Your task to perform on an android device: move an email to a new category in the gmail app Image 0: 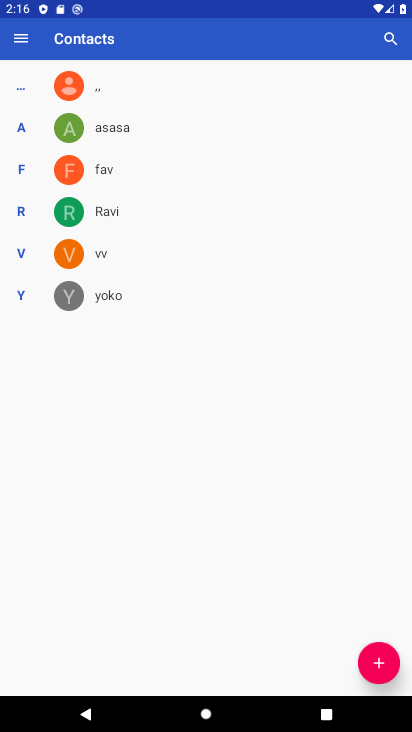
Step 0: press home button
Your task to perform on an android device: move an email to a new category in the gmail app Image 1: 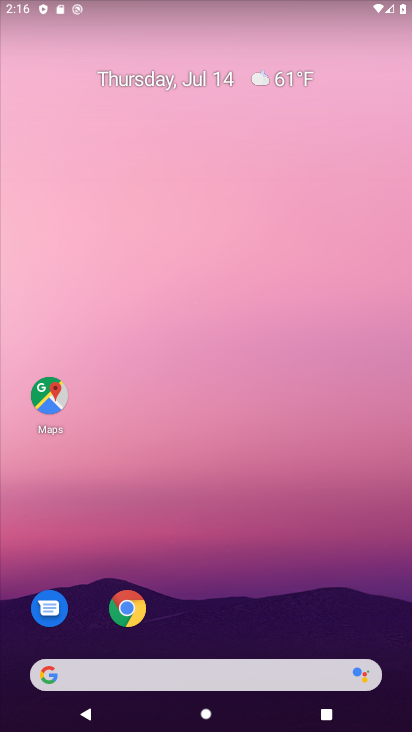
Step 1: drag from (251, 654) to (278, 202)
Your task to perform on an android device: move an email to a new category in the gmail app Image 2: 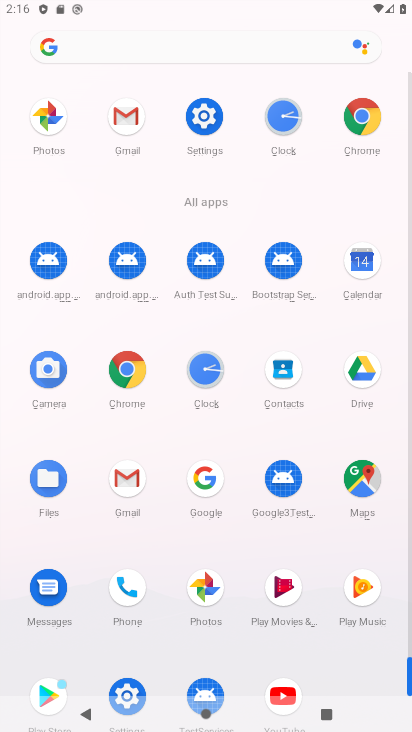
Step 2: click (116, 490)
Your task to perform on an android device: move an email to a new category in the gmail app Image 3: 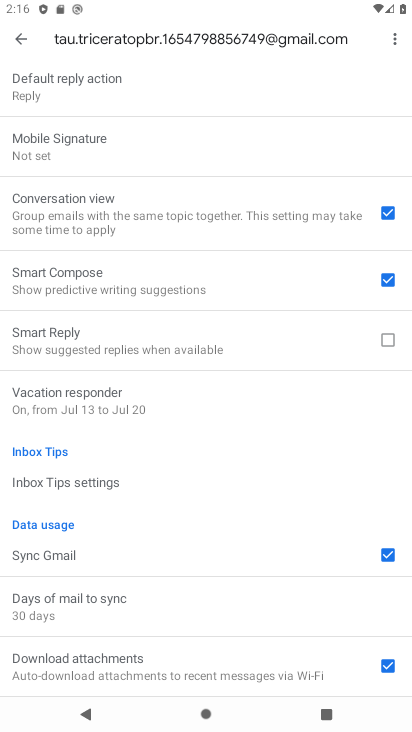
Step 3: press back button
Your task to perform on an android device: move an email to a new category in the gmail app Image 4: 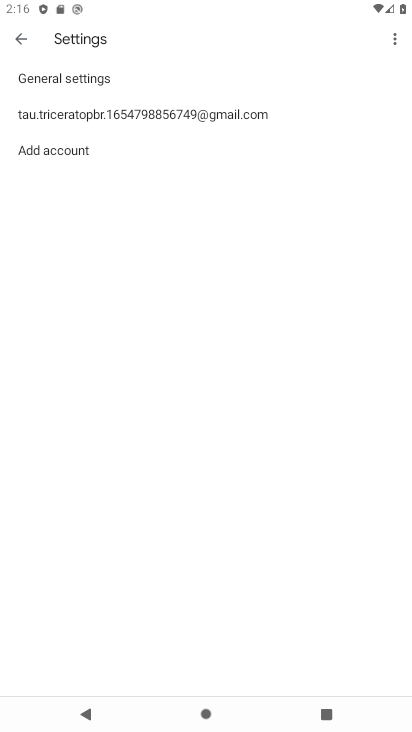
Step 4: press back button
Your task to perform on an android device: move an email to a new category in the gmail app Image 5: 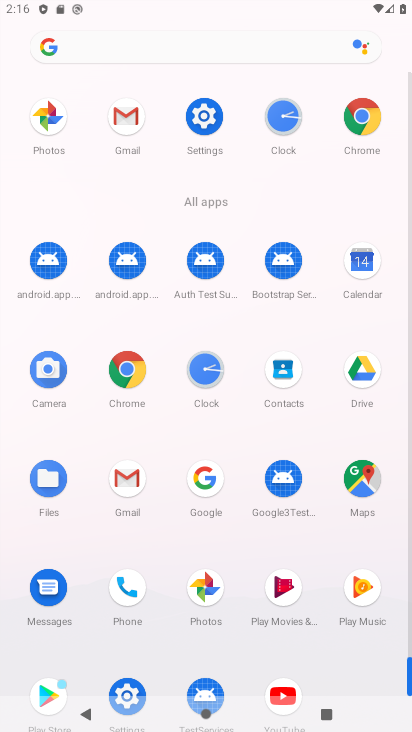
Step 5: click (129, 482)
Your task to perform on an android device: move an email to a new category in the gmail app Image 6: 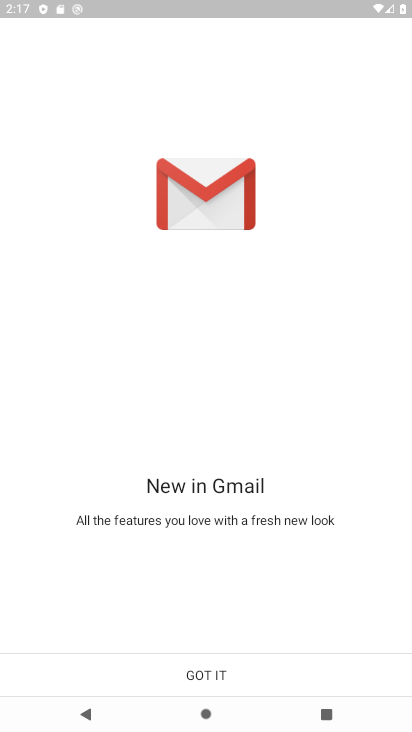
Step 6: click (230, 678)
Your task to perform on an android device: move an email to a new category in the gmail app Image 7: 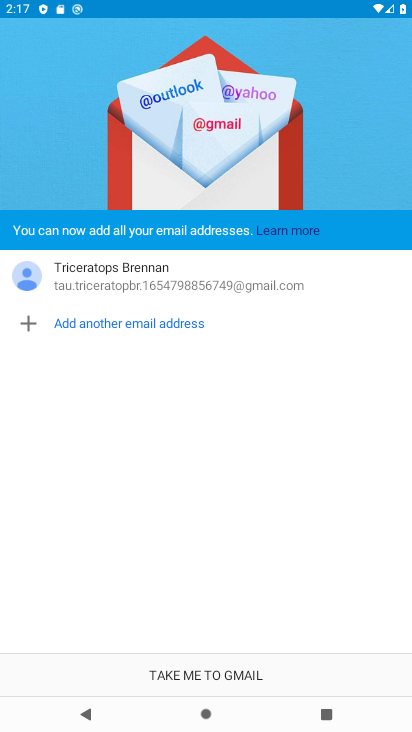
Step 7: click (230, 678)
Your task to perform on an android device: move an email to a new category in the gmail app Image 8: 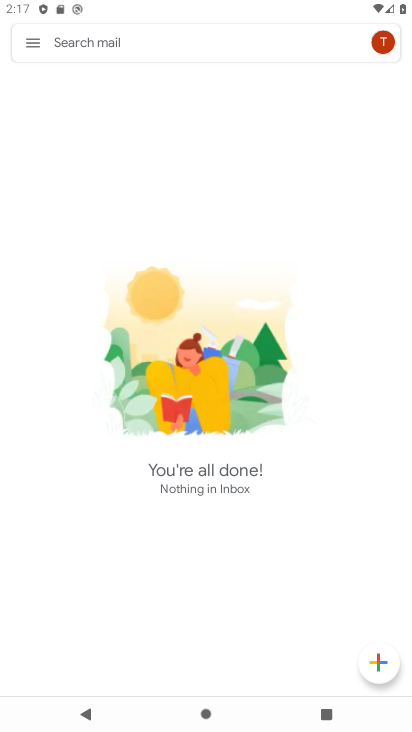
Step 8: click (33, 41)
Your task to perform on an android device: move an email to a new category in the gmail app Image 9: 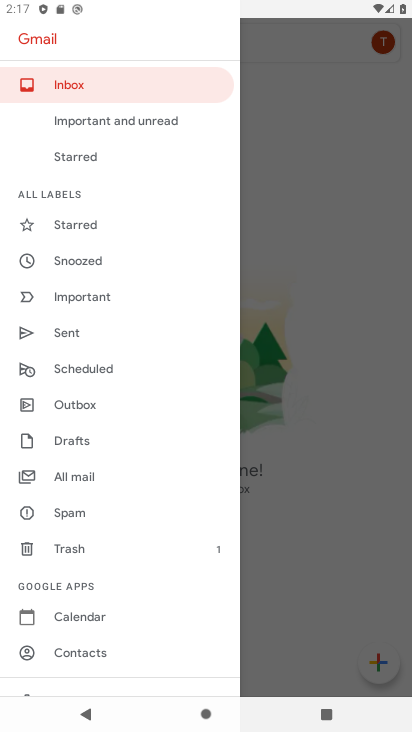
Step 9: click (105, 484)
Your task to perform on an android device: move an email to a new category in the gmail app Image 10: 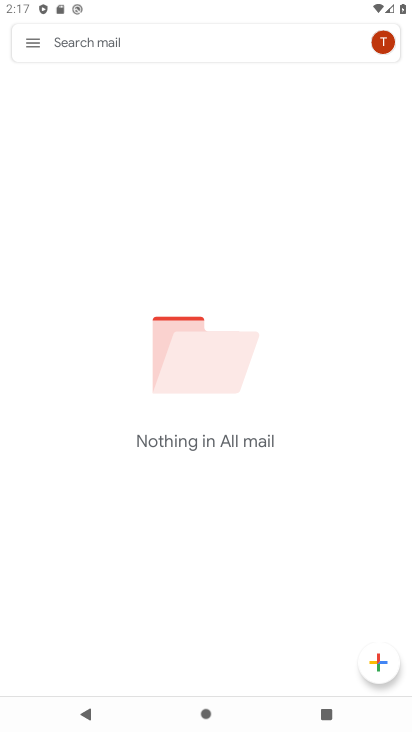
Step 10: task complete